Your task to perform on an android device: see sites visited before in the chrome app Image 0: 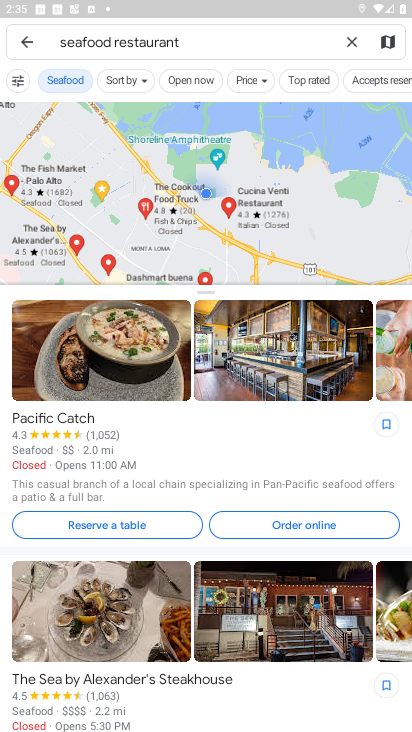
Step 0: press home button
Your task to perform on an android device: see sites visited before in the chrome app Image 1: 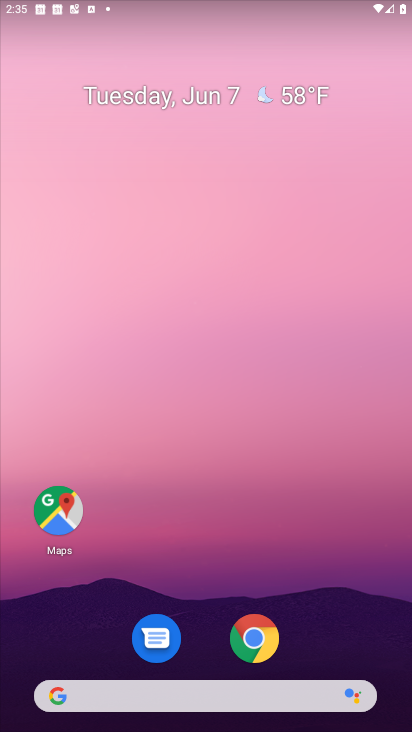
Step 1: drag from (208, 650) to (222, 265)
Your task to perform on an android device: see sites visited before in the chrome app Image 2: 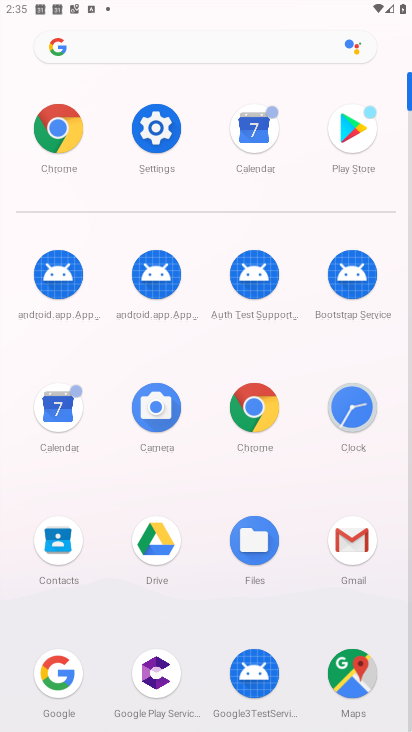
Step 2: click (67, 124)
Your task to perform on an android device: see sites visited before in the chrome app Image 3: 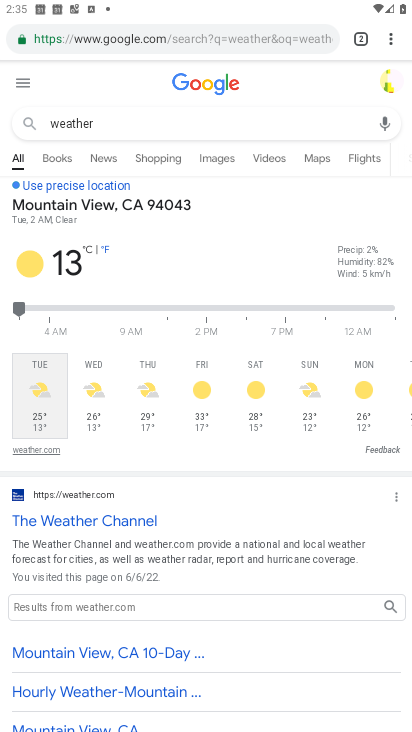
Step 3: click (388, 40)
Your task to perform on an android device: see sites visited before in the chrome app Image 4: 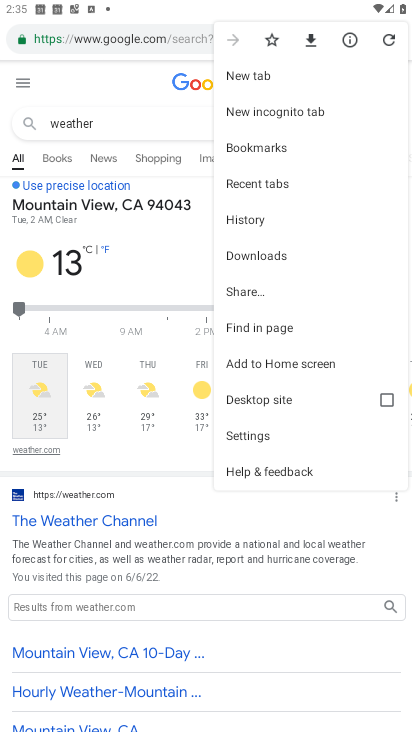
Step 4: click (253, 190)
Your task to perform on an android device: see sites visited before in the chrome app Image 5: 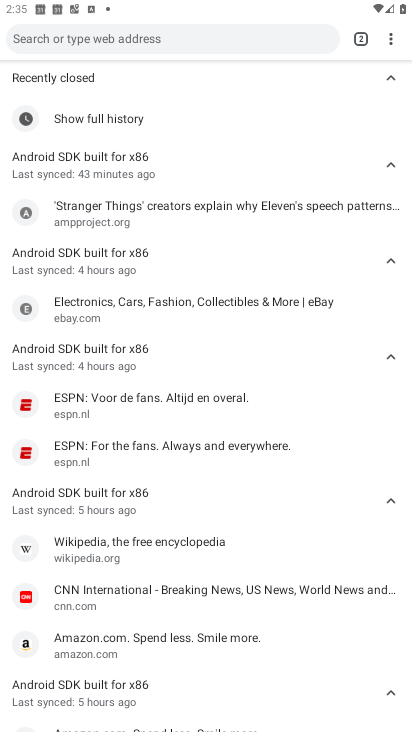
Step 5: task complete